Your task to perform on an android device: turn off translation in the chrome app Image 0: 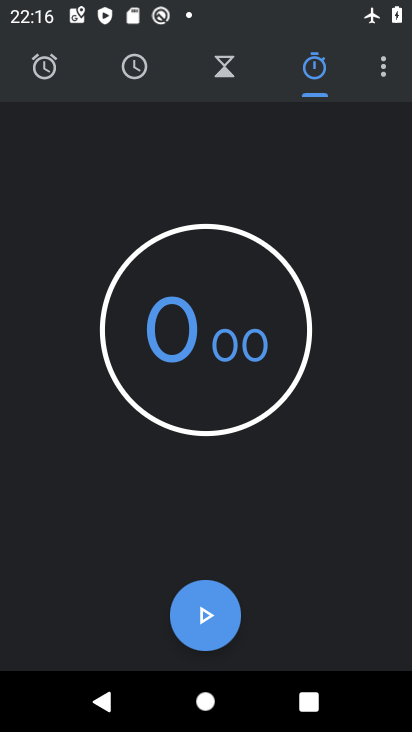
Step 0: press home button
Your task to perform on an android device: turn off translation in the chrome app Image 1: 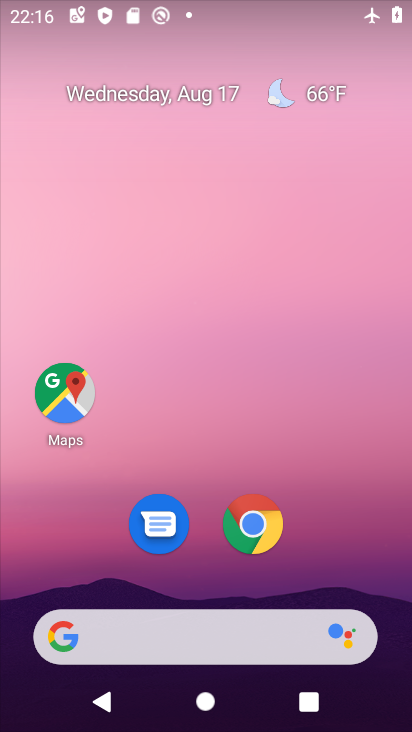
Step 1: click (254, 520)
Your task to perform on an android device: turn off translation in the chrome app Image 2: 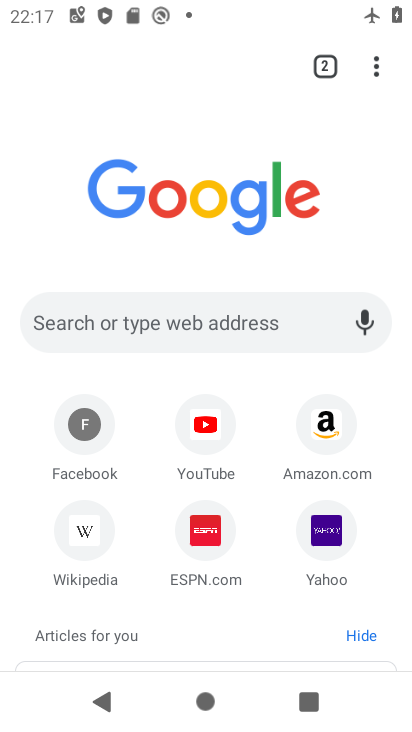
Step 2: click (370, 66)
Your task to perform on an android device: turn off translation in the chrome app Image 3: 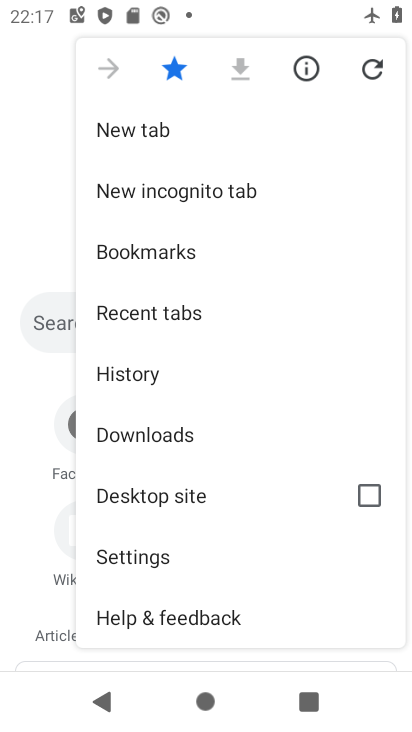
Step 3: click (165, 557)
Your task to perform on an android device: turn off translation in the chrome app Image 4: 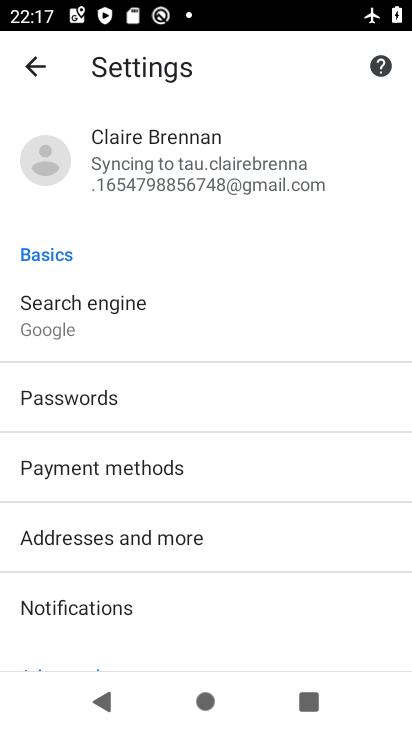
Step 4: drag from (248, 541) to (305, 200)
Your task to perform on an android device: turn off translation in the chrome app Image 5: 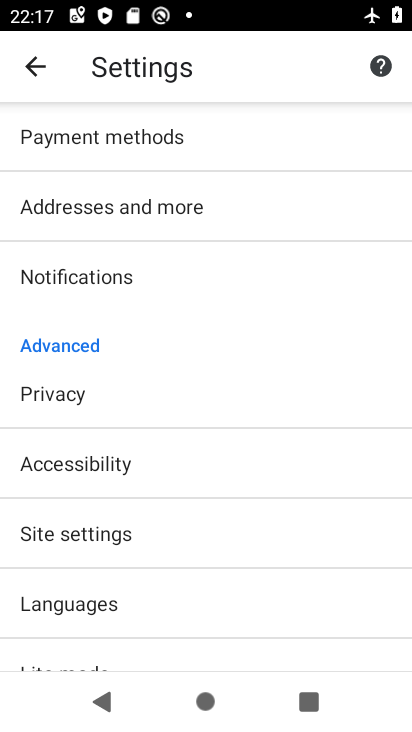
Step 5: click (203, 599)
Your task to perform on an android device: turn off translation in the chrome app Image 6: 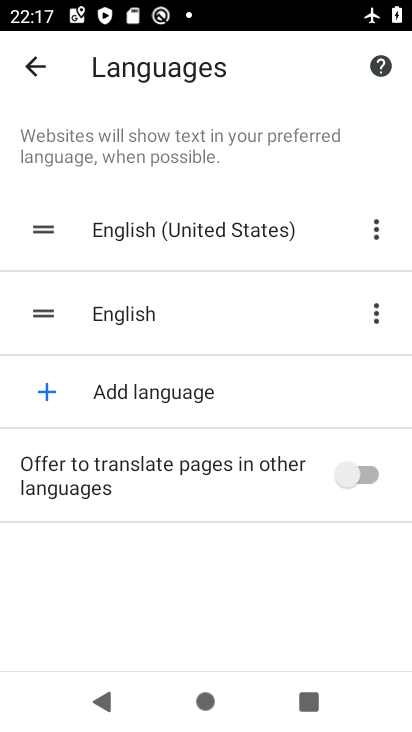
Step 6: task complete